Your task to perform on an android device: change the clock display to analog Image 0: 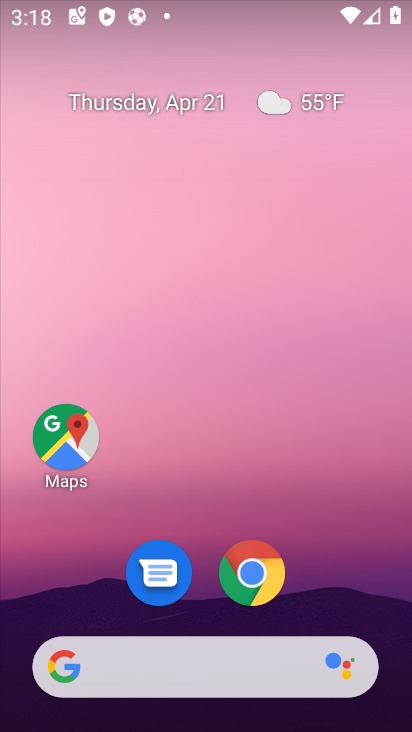
Step 0: drag from (382, 611) to (307, 253)
Your task to perform on an android device: change the clock display to analog Image 1: 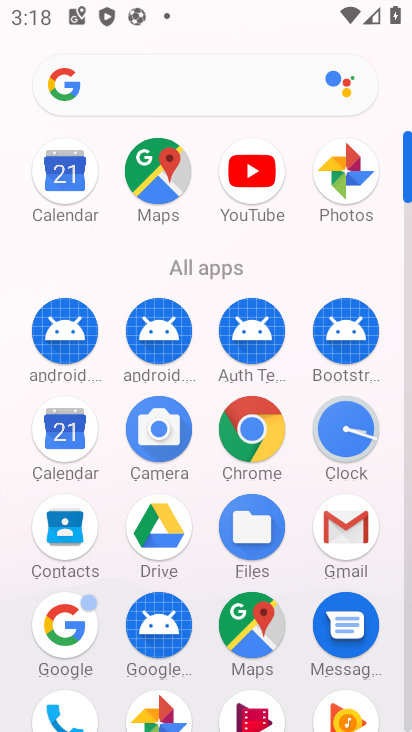
Step 1: click (409, 698)
Your task to perform on an android device: change the clock display to analog Image 2: 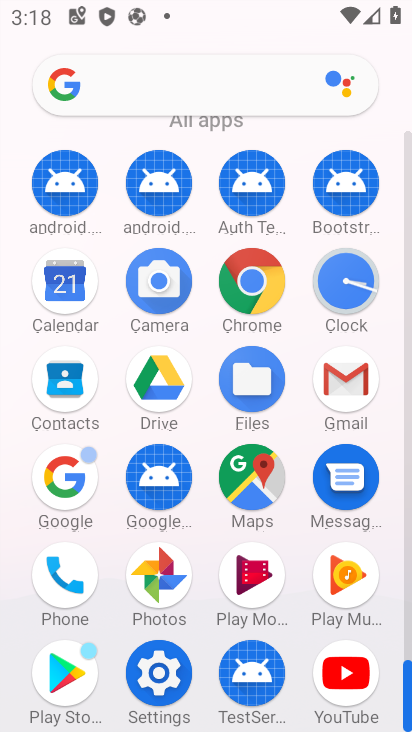
Step 2: click (342, 280)
Your task to perform on an android device: change the clock display to analog Image 3: 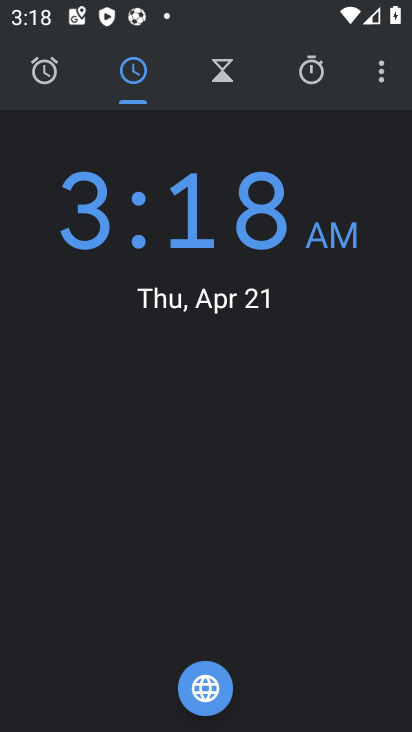
Step 3: click (381, 71)
Your task to perform on an android device: change the clock display to analog Image 4: 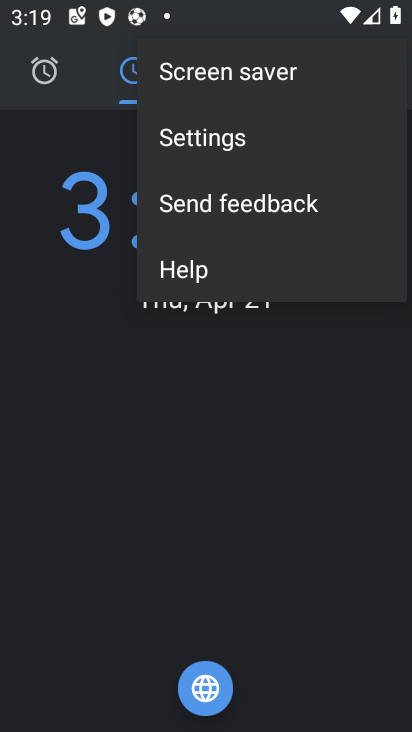
Step 4: click (210, 135)
Your task to perform on an android device: change the clock display to analog Image 5: 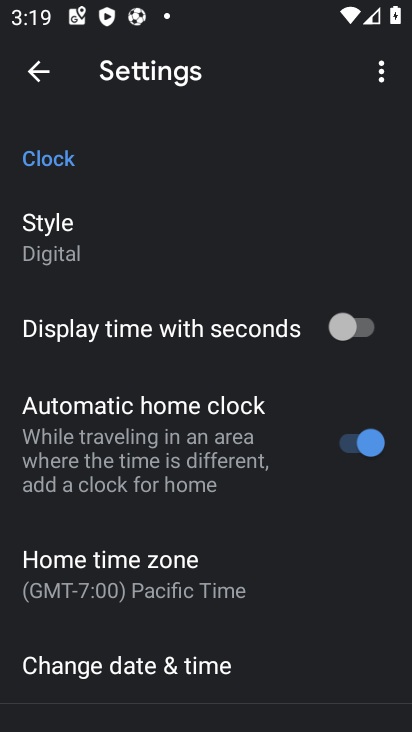
Step 5: click (57, 258)
Your task to perform on an android device: change the clock display to analog Image 6: 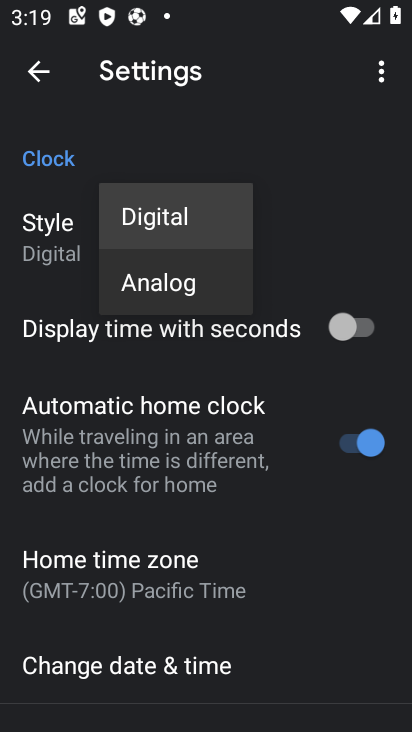
Step 6: click (131, 297)
Your task to perform on an android device: change the clock display to analog Image 7: 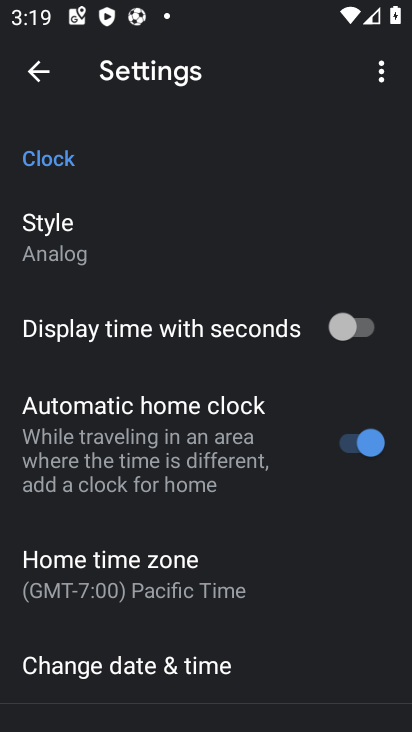
Step 7: task complete